Your task to perform on an android device: install app "AliExpress" Image 0: 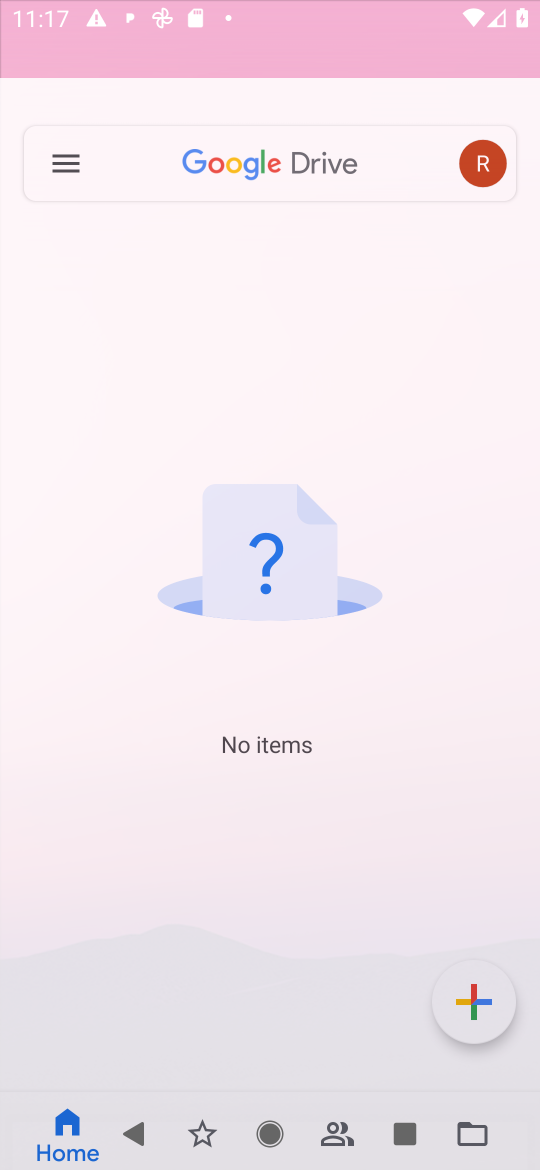
Step 0: press home button
Your task to perform on an android device: install app "AliExpress" Image 1: 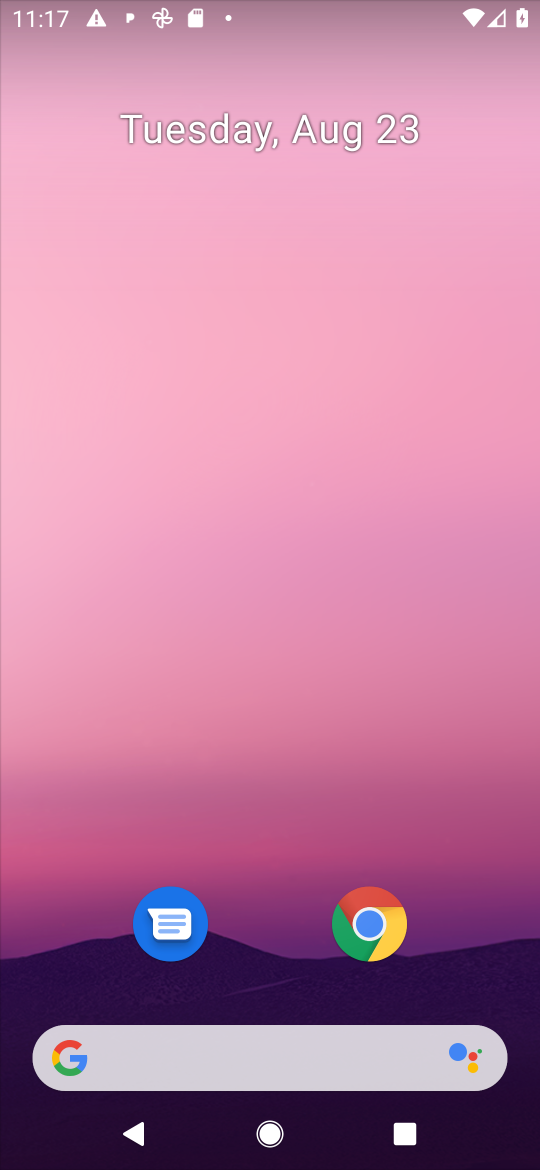
Step 1: drag from (469, 847) to (466, 226)
Your task to perform on an android device: install app "AliExpress" Image 2: 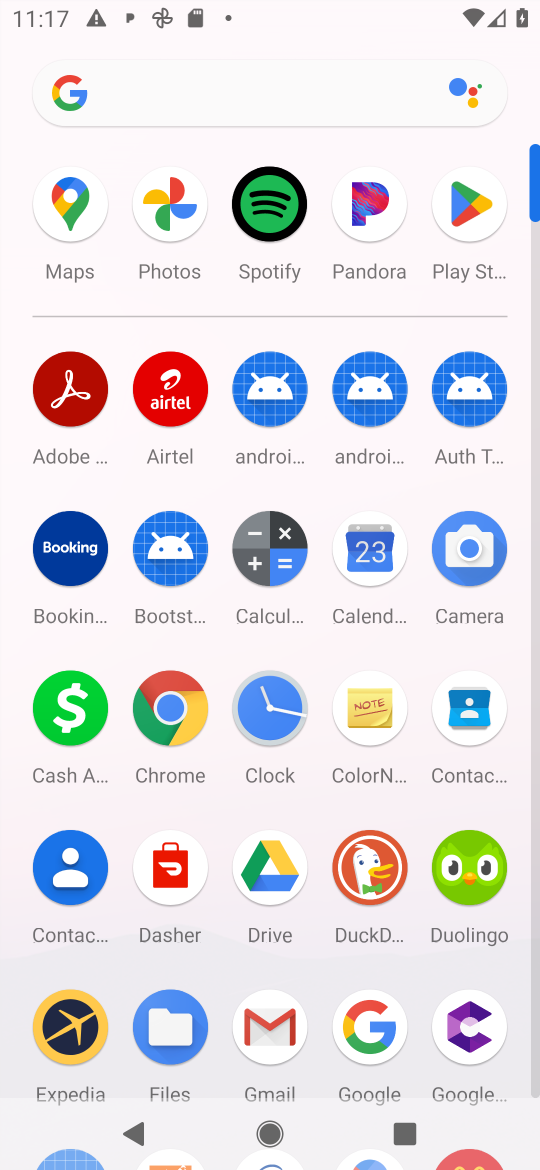
Step 2: click (477, 202)
Your task to perform on an android device: install app "AliExpress" Image 3: 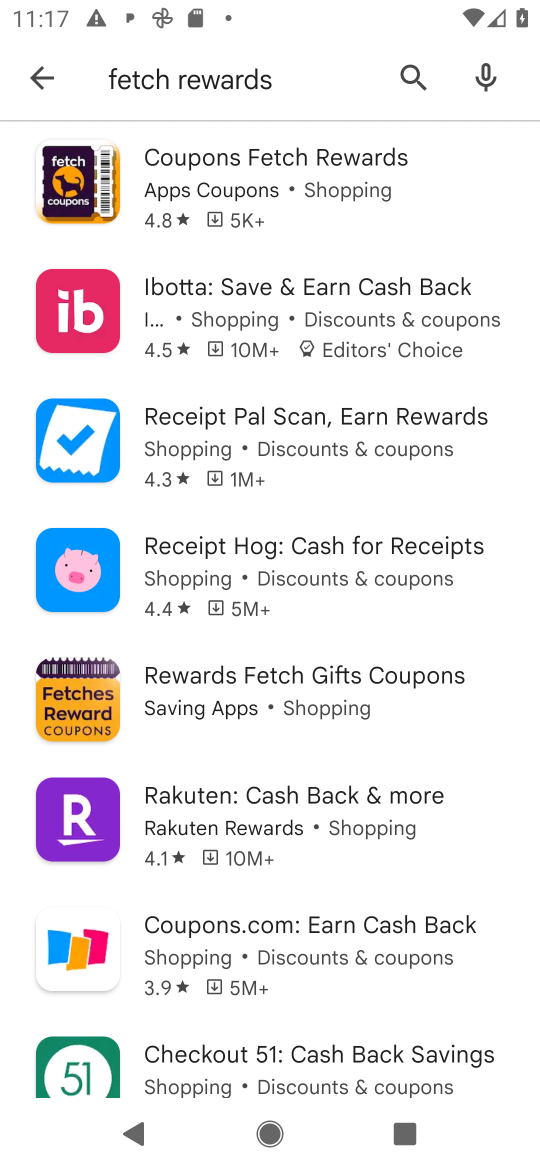
Step 3: press back button
Your task to perform on an android device: install app "AliExpress" Image 4: 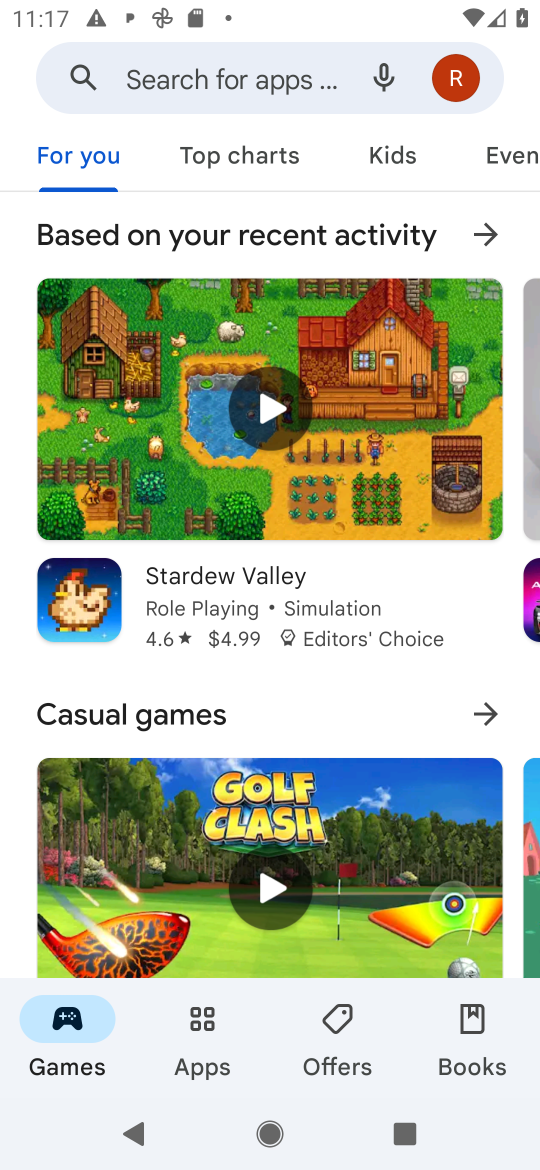
Step 4: click (264, 78)
Your task to perform on an android device: install app "AliExpress" Image 5: 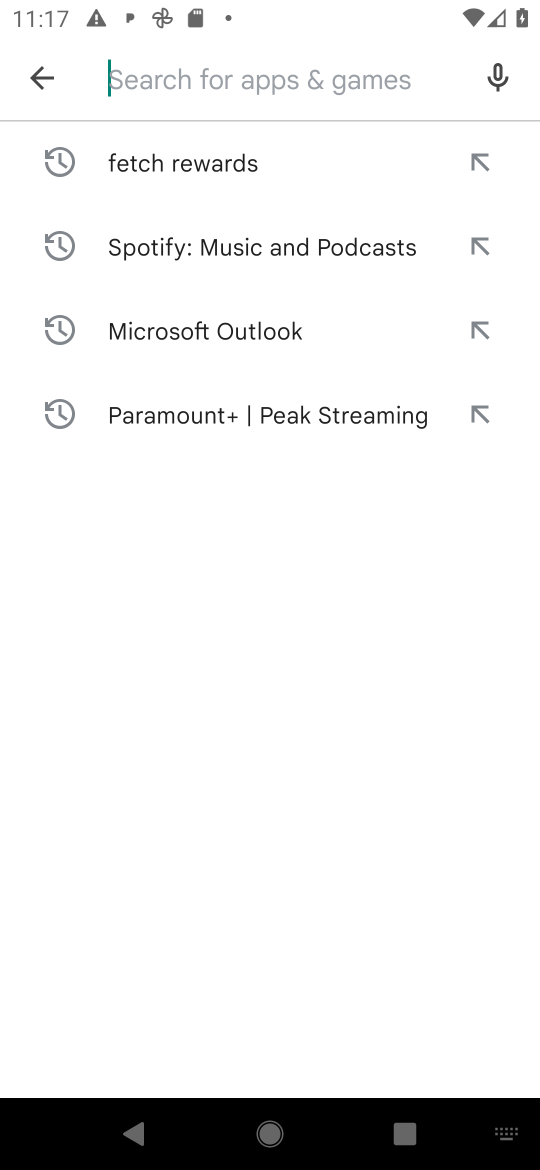
Step 5: press enter
Your task to perform on an android device: install app "AliExpress" Image 6: 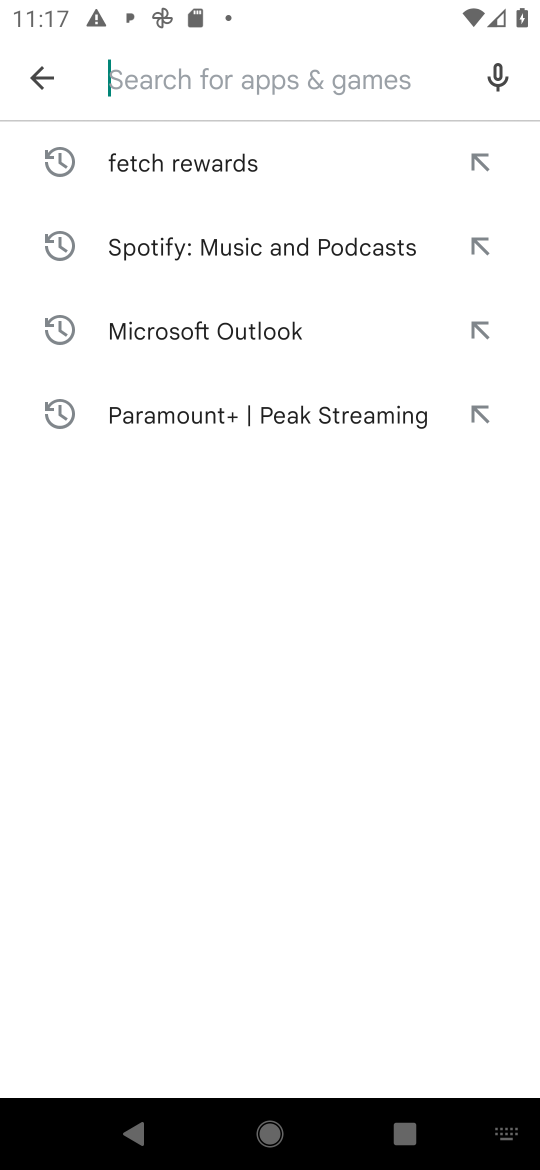
Step 6: type "aliexpress"
Your task to perform on an android device: install app "AliExpress" Image 7: 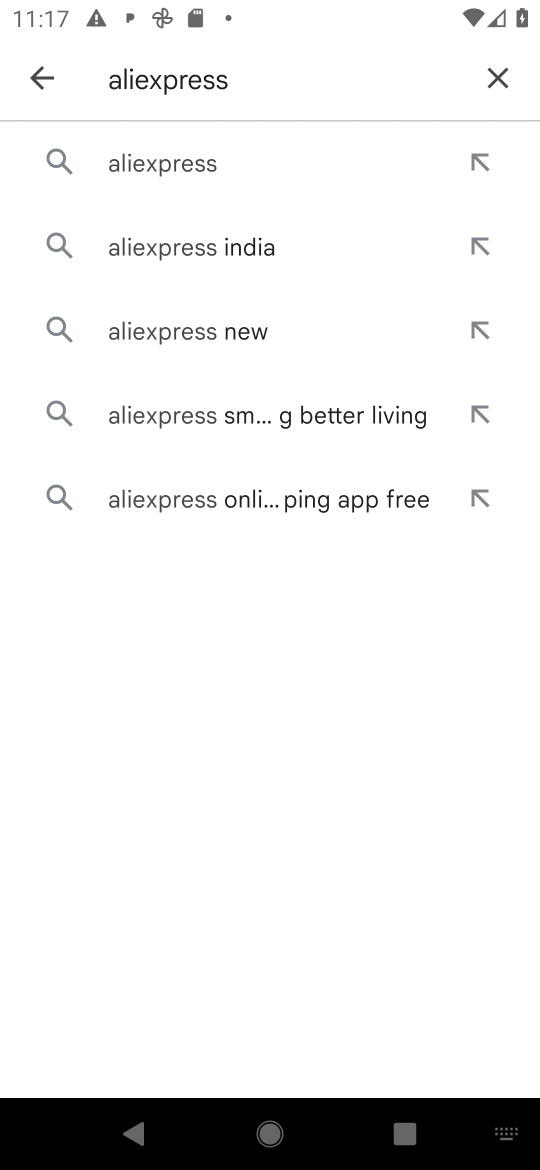
Step 7: click (167, 159)
Your task to perform on an android device: install app "AliExpress" Image 8: 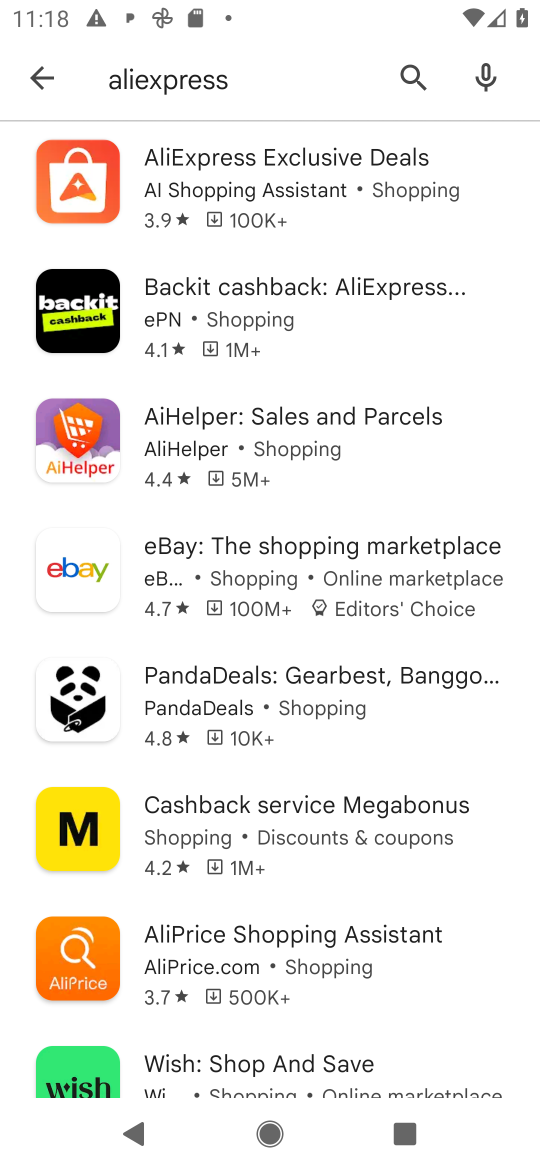
Step 8: task complete